Your task to perform on an android device: Open Google Chrome Image 0: 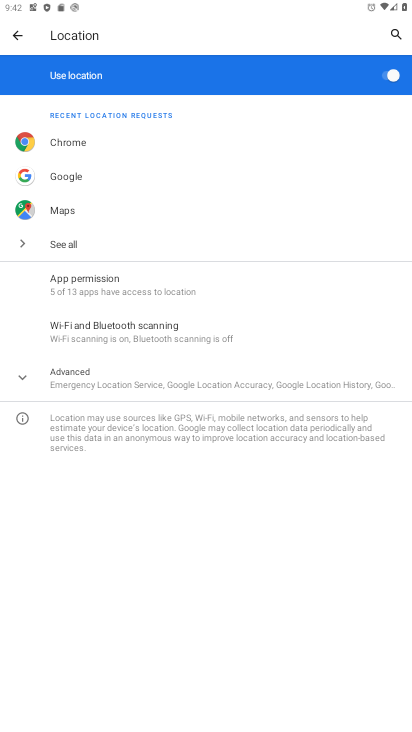
Step 0: press home button
Your task to perform on an android device: Open Google Chrome Image 1: 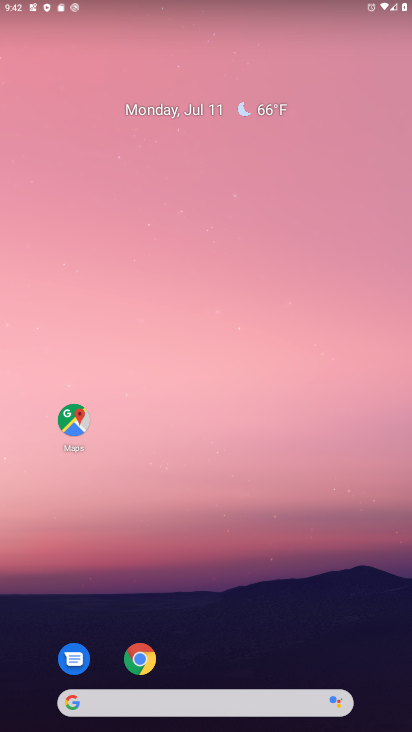
Step 1: drag from (360, 596) to (364, 92)
Your task to perform on an android device: Open Google Chrome Image 2: 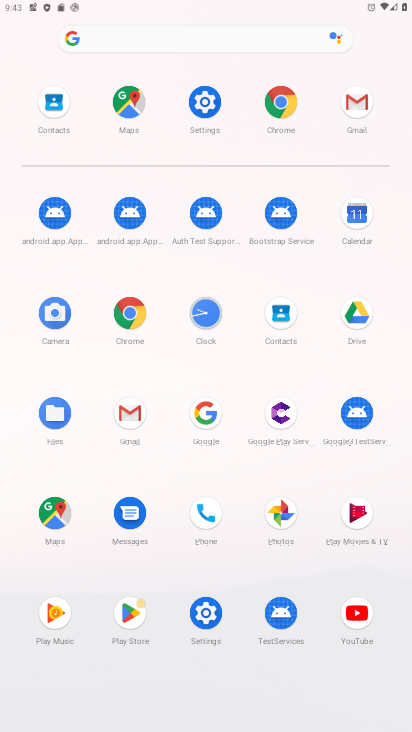
Step 2: click (136, 308)
Your task to perform on an android device: Open Google Chrome Image 3: 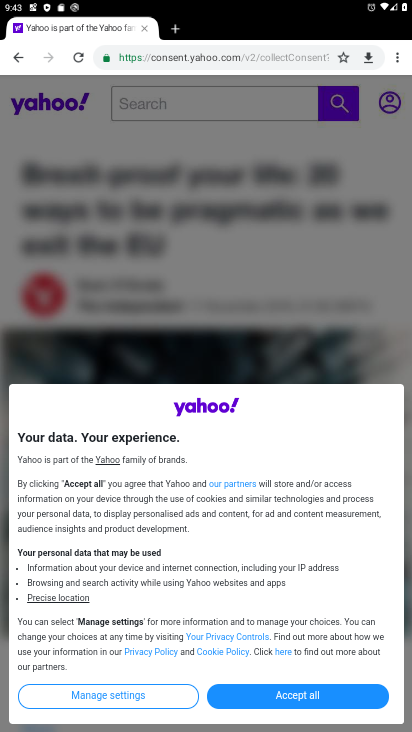
Step 3: task complete